Your task to perform on an android device: clear history in the chrome app Image 0: 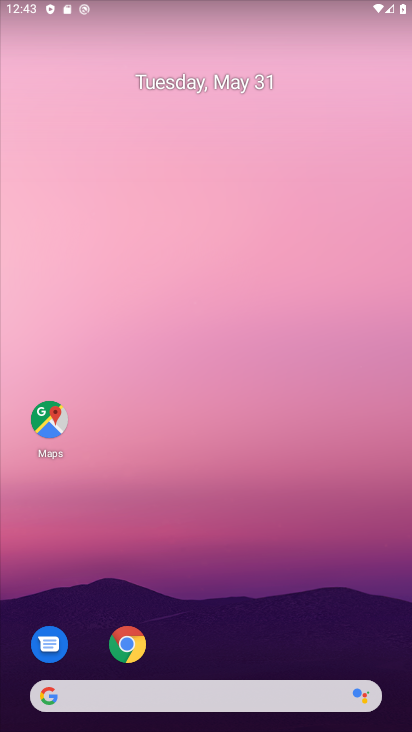
Step 0: click (127, 646)
Your task to perform on an android device: clear history in the chrome app Image 1: 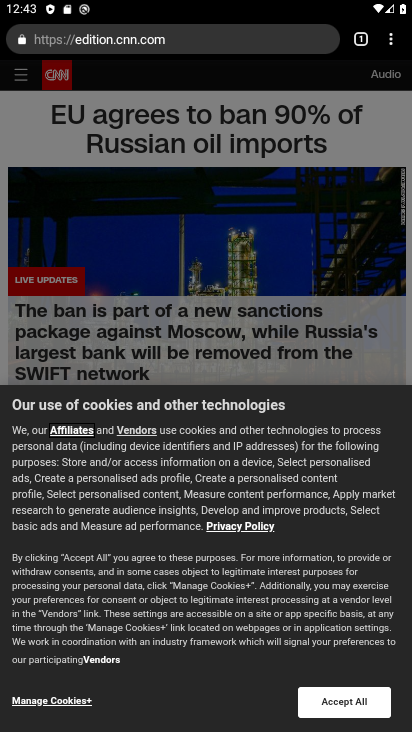
Step 1: click (392, 43)
Your task to perform on an android device: clear history in the chrome app Image 2: 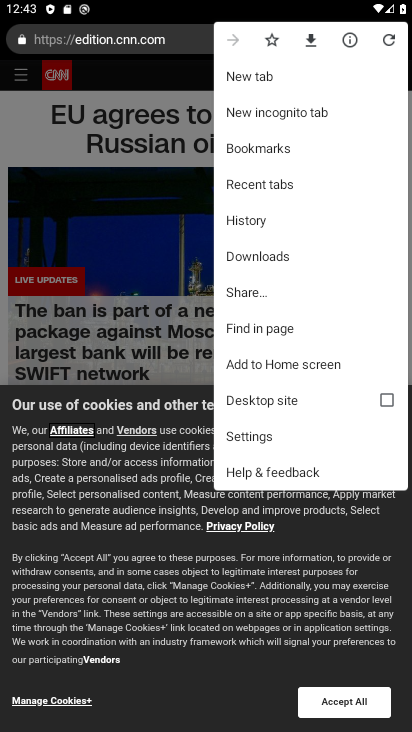
Step 2: click (242, 224)
Your task to perform on an android device: clear history in the chrome app Image 3: 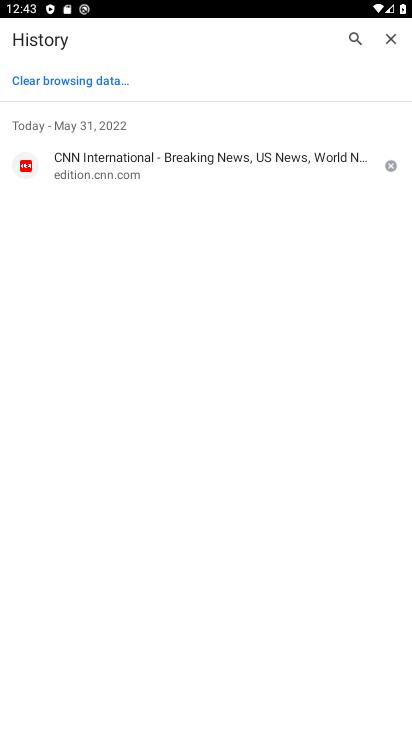
Step 3: click (102, 82)
Your task to perform on an android device: clear history in the chrome app Image 4: 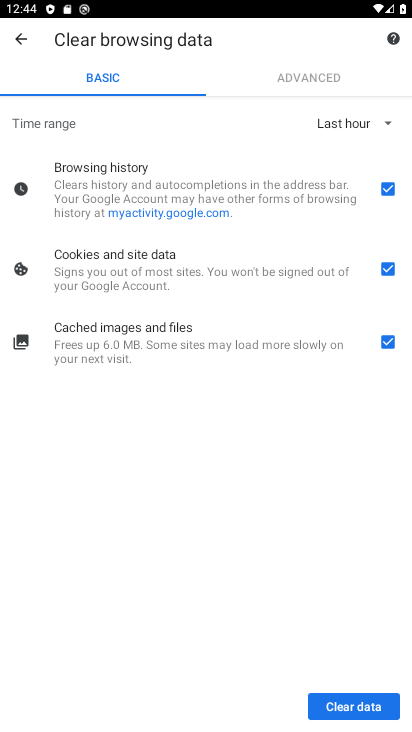
Step 4: click (392, 267)
Your task to perform on an android device: clear history in the chrome app Image 5: 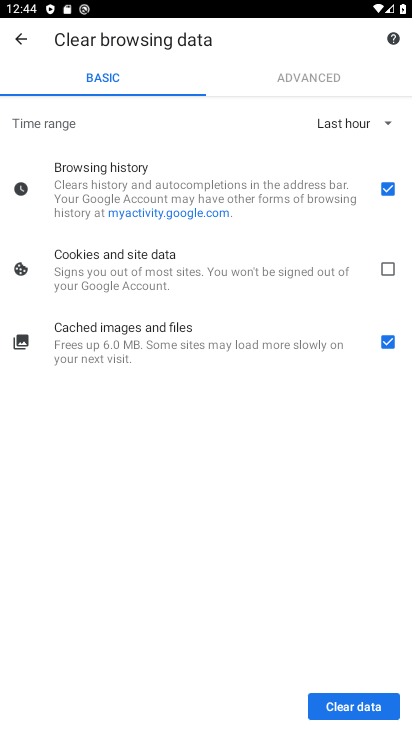
Step 5: click (388, 341)
Your task to perform on an android device: clear history in the chrome app Image 6: 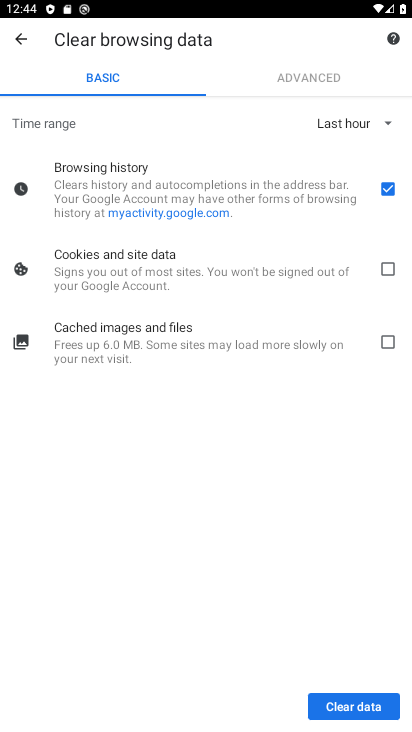
Step 6: click (372, 706)
Your task to perform on an android device: clear history in the chrome app Image 7: 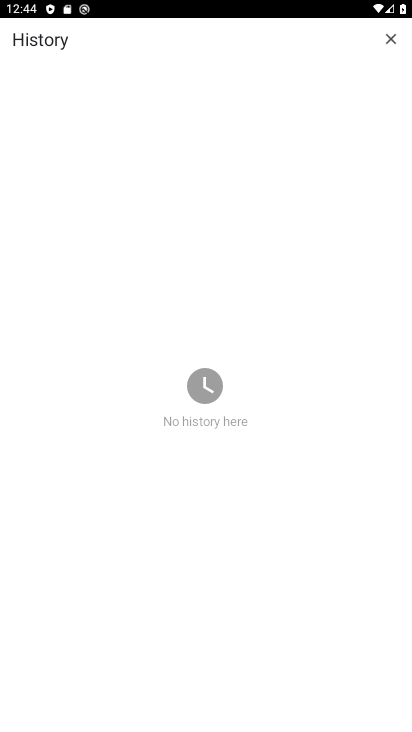
Step 7: task complete